Your task to perform on an android device: move a message to another label in the gmail app Image 0: 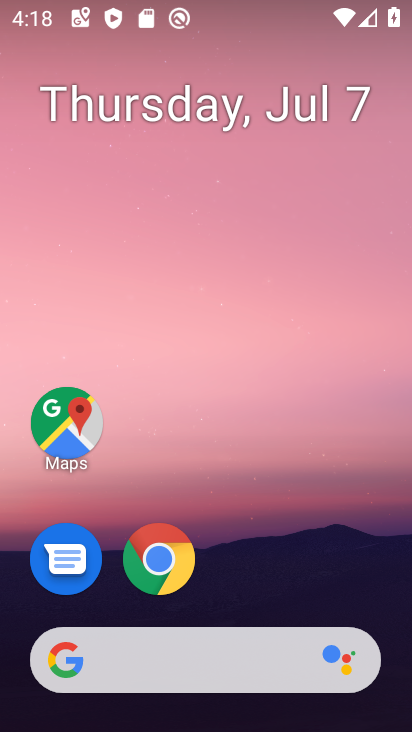
Step 0: drag from (248, 579) to (296, 22)
Your task to perform on an android device: move a message to another label in the gmail app Image 1: 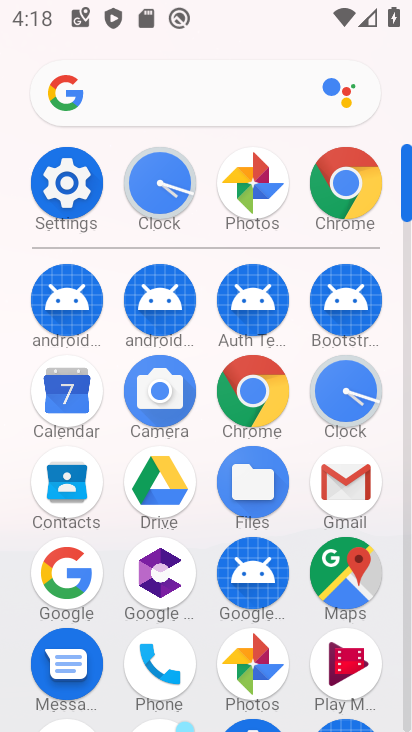
Step 1: click (343, 481)
Your task to perform on an android device: move a message to another label in the gmail app Image 2: 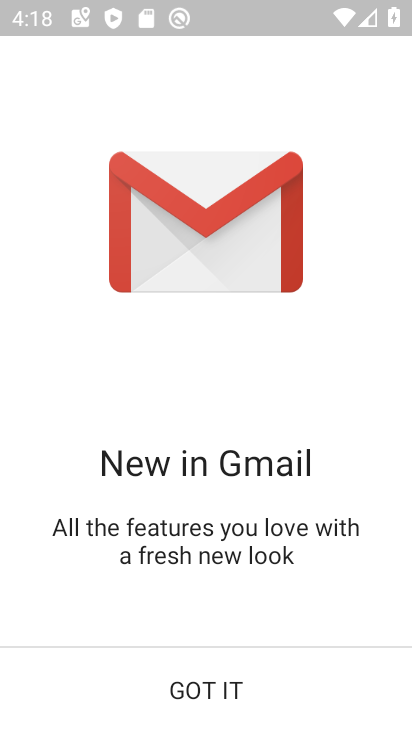
Step 2: click (190, 694)
Your task to perform on an android device: move a message to another label in the gmail app Image 3: 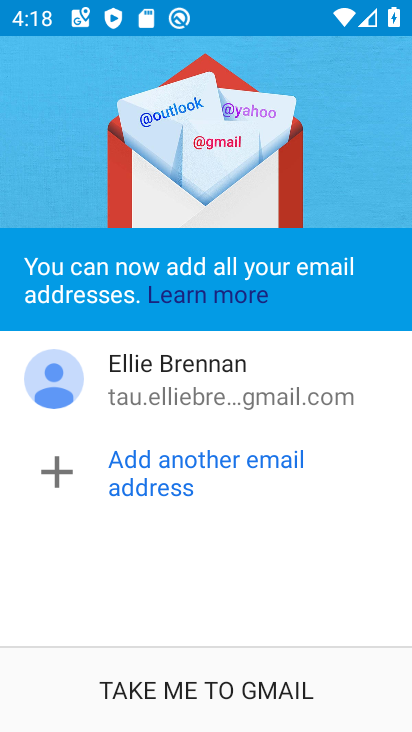
Step 3: click (160, 695)
Your task to perform on an android device: move a message to another label in the gmail app Image 4: 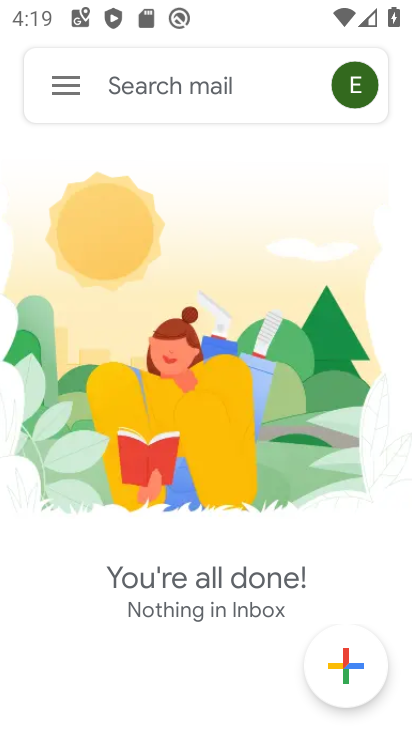
Step 4: click (63, 63)
Your task to perform on an android device: move a message to another label in the gmail app Image 5: 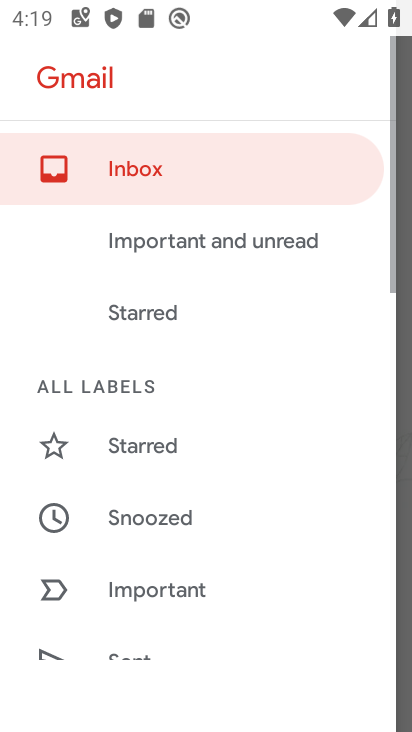
Step 5: drag from (211, 623) to (280, 85)
Your task to perform on an android device: move a message to another label in the gmail app Image 6: 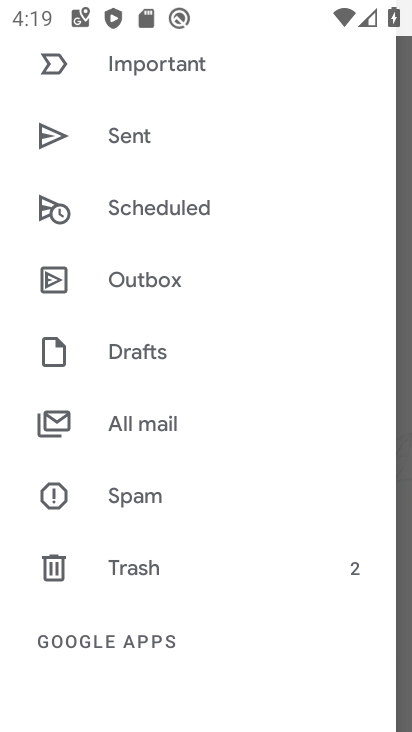
Step 6: click (162, 411)
Your task to perform on an android device: move a message to another label in the gmail app Image 7: 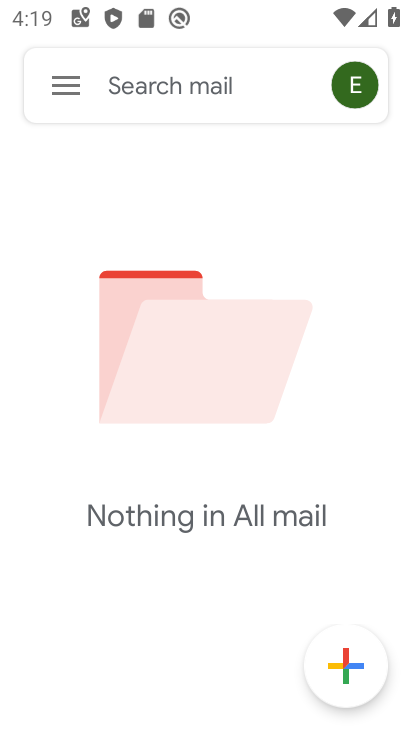
Step 7: task complete